Your task to perform on an android device: Go to Maps Image 0: 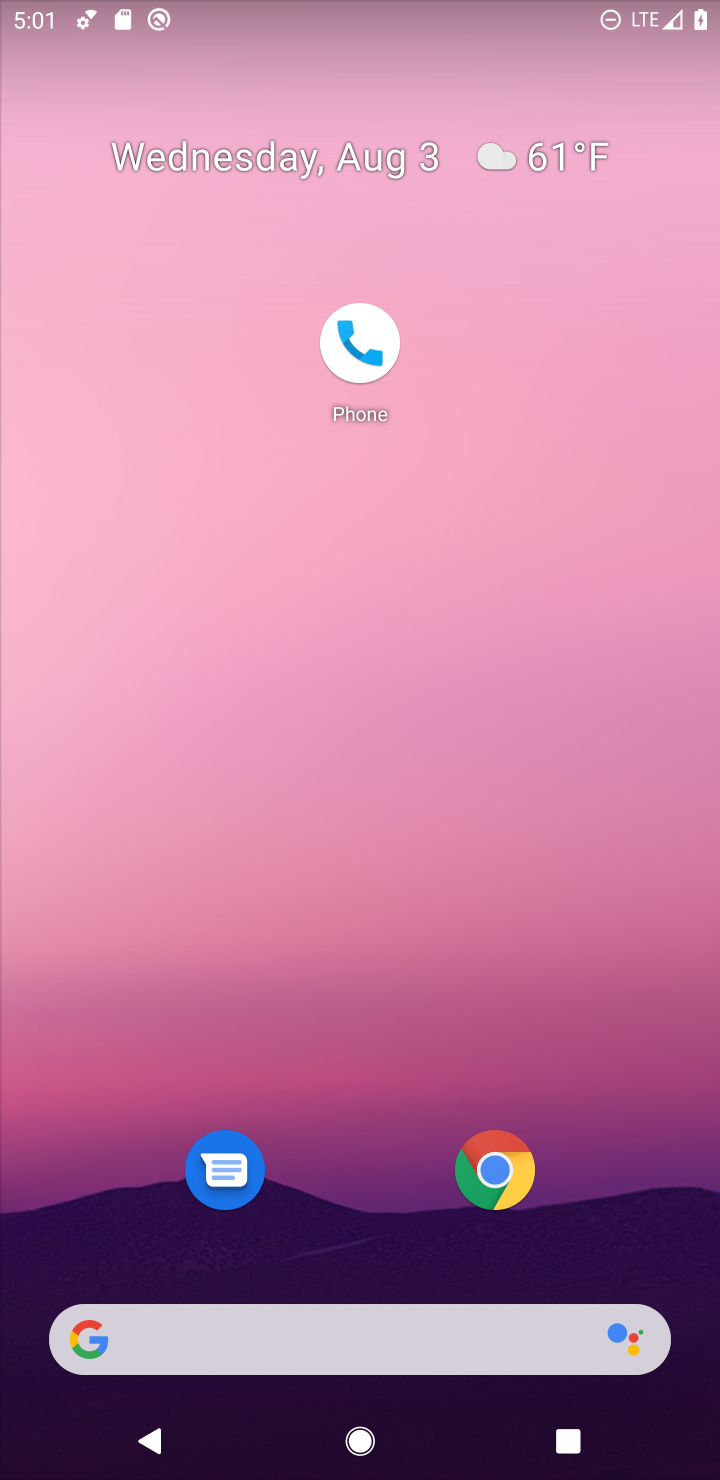
Step 0: drag from (245, 972) to (158, 104)
Your task to perform on an android device: Go to Maps Image 1: 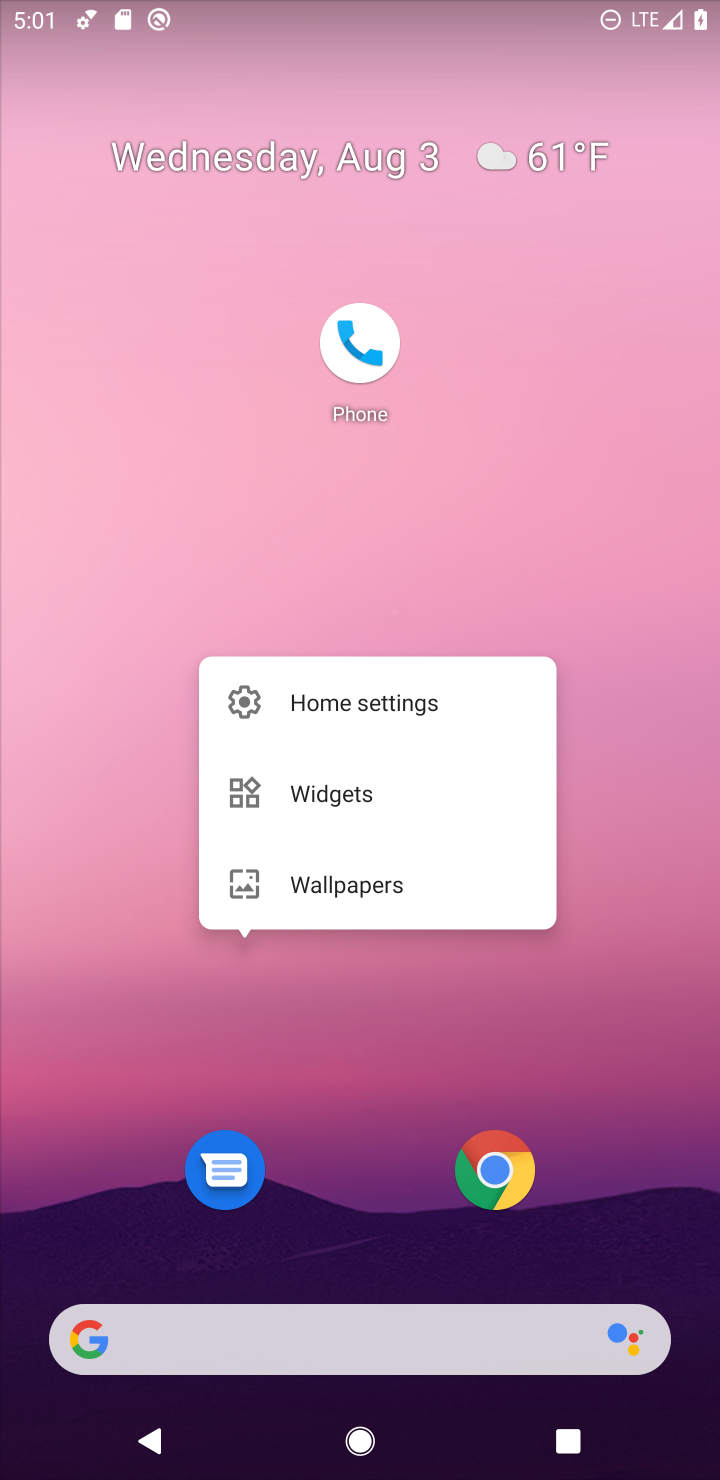
Step 1: click (321, 1154)
Your task to perform on an android device: Go to Maps Image 2: 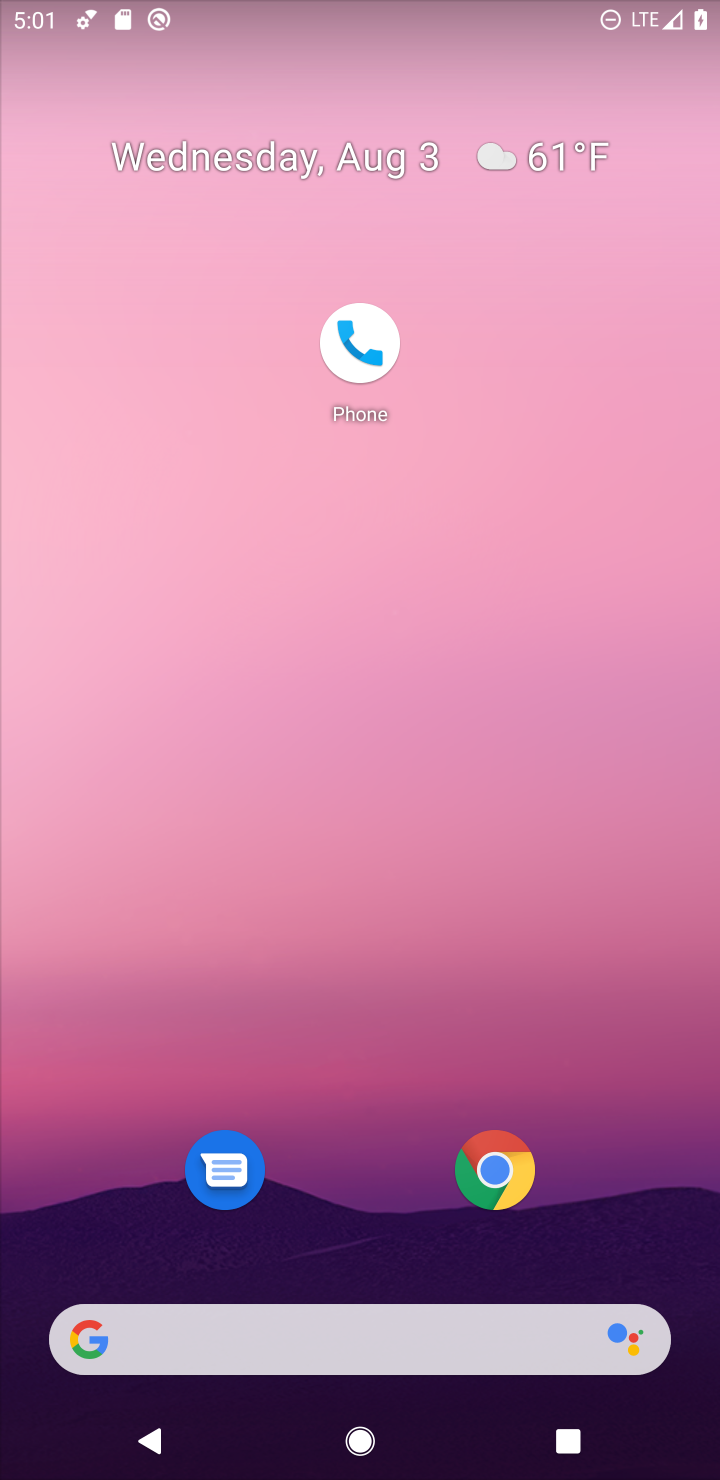
Step 2: drag from (327, 973) to (343, 165)
Your task to perform on an android device: Go to Maps Image 3: 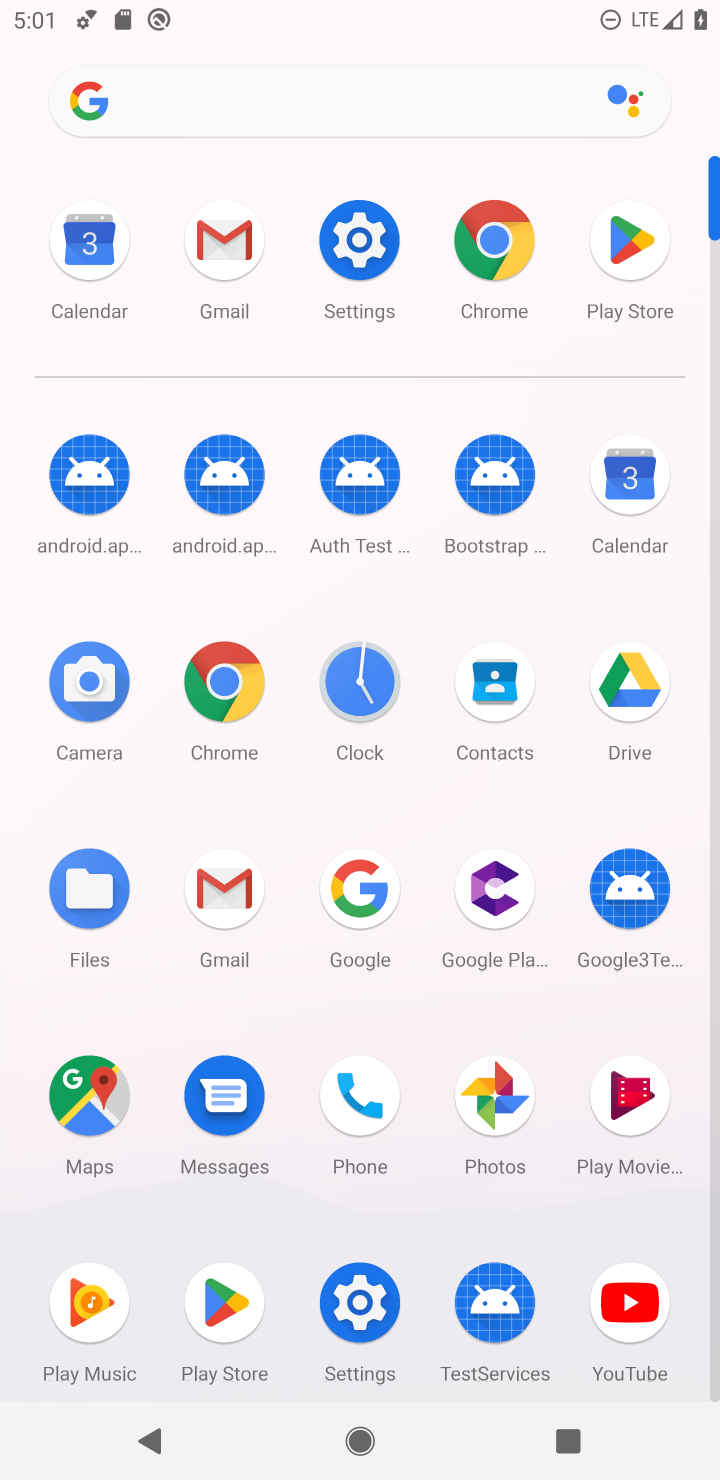
Step 3: click (103, 1120)
Your task to perform on an android device: Go to Maps Image 4: 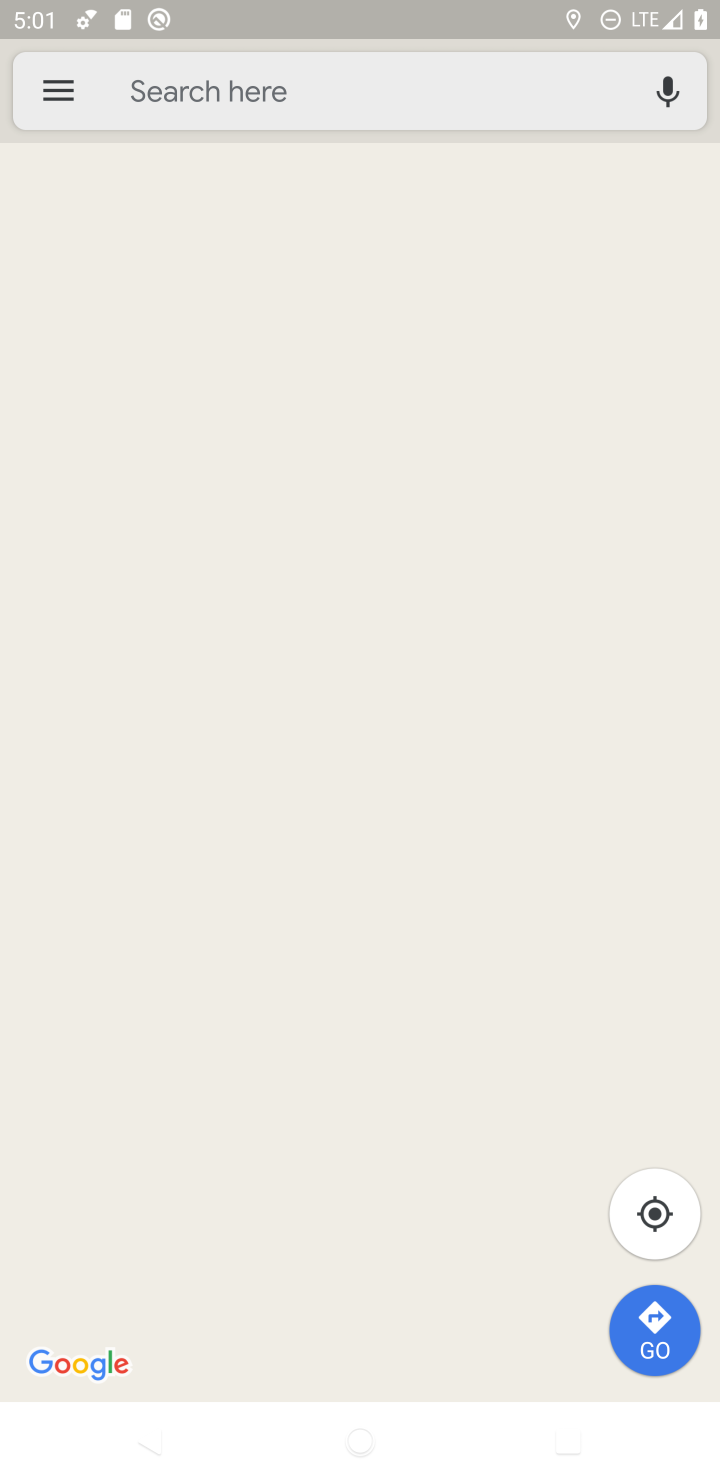
Step 4: task complete